Your task to perform on an android device: Go to Google Image 0: 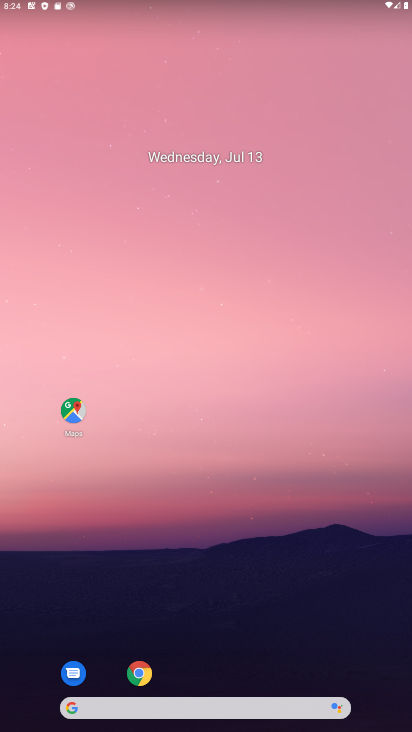
Step 0: drag from (293, 584) to (236, 135)
Your task to perform on an android device: Go to Google Image 1: 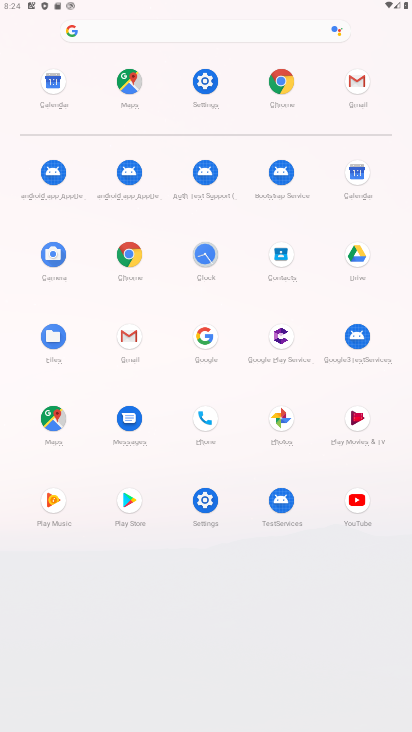
Step 1: click (203, 337)
Your task to perform on an android device: Go to Google Image 2: 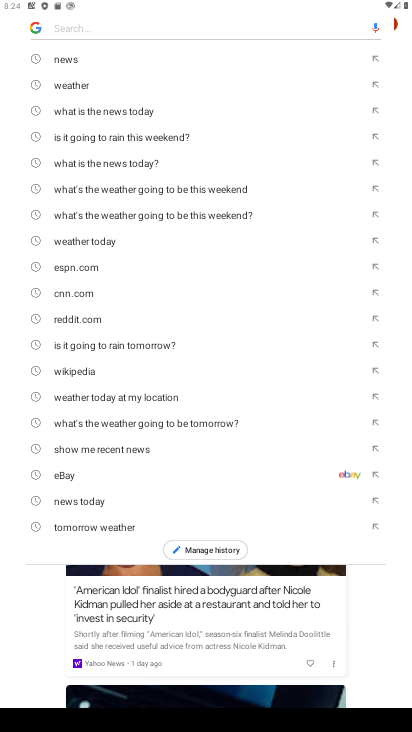
Step 2: task complete